Your task to perform on an android device: Open Amazon Image 0: 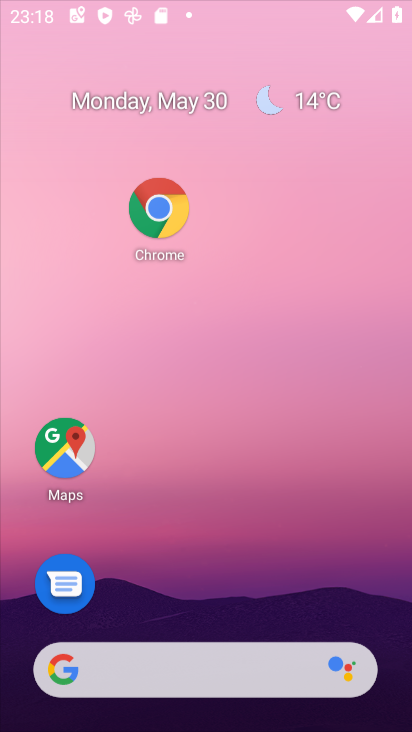
Step 0: click (411, 139)
Your task to perform on an android device: Open Amazon Image 1: 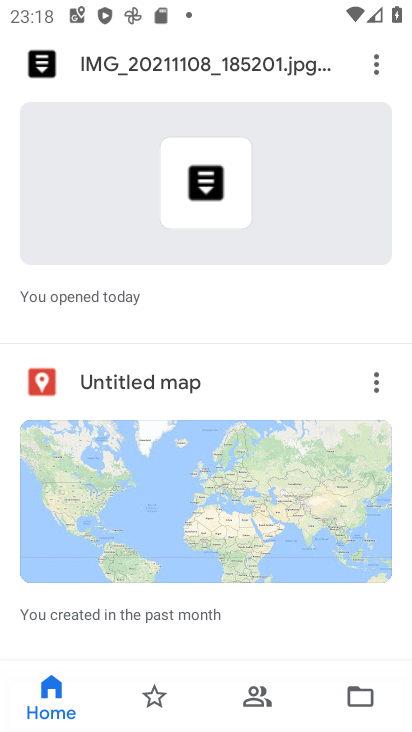
Step 1: press home button
Your task to perform on an android device: Open Amazon Image 2: 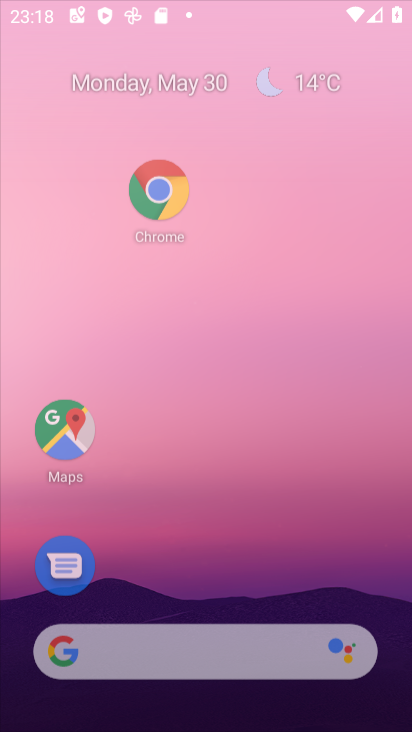
Step 2: drag from (259, 578) to (410, 31)
Your task to perform on an android device: Open Amazon Image 3: 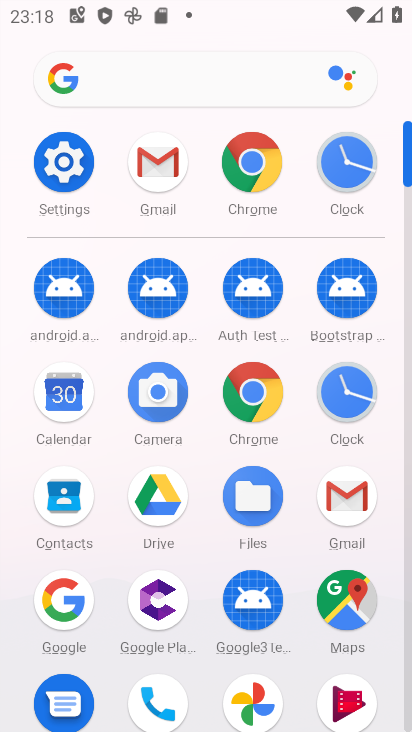
Step 3: click (250, 393)
Your task to perform on an android device: Open Amazon Image 4: 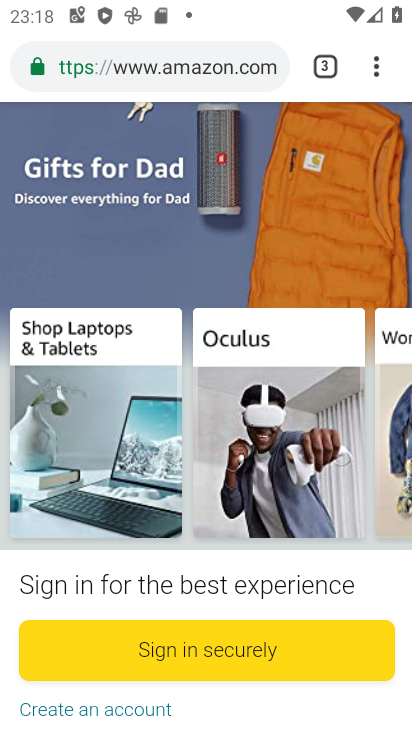
Step 4: click (378, 69)
Your task to perform on an android device: Open Amazon Image 5: 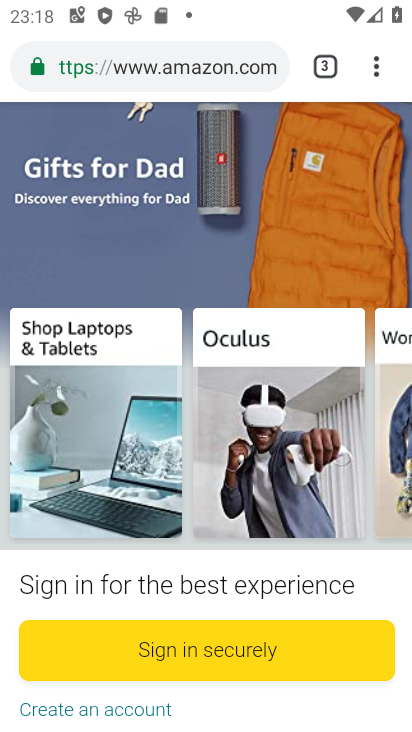
Step 5: task complete